Your task to perform on an android device: change keyboard looks Image 0: 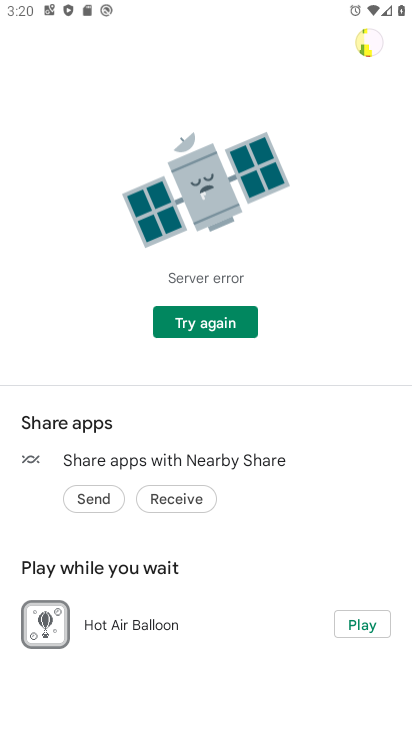
Step 0: press home button
Your task to perform on an android device: change keyboard looks Image 1: 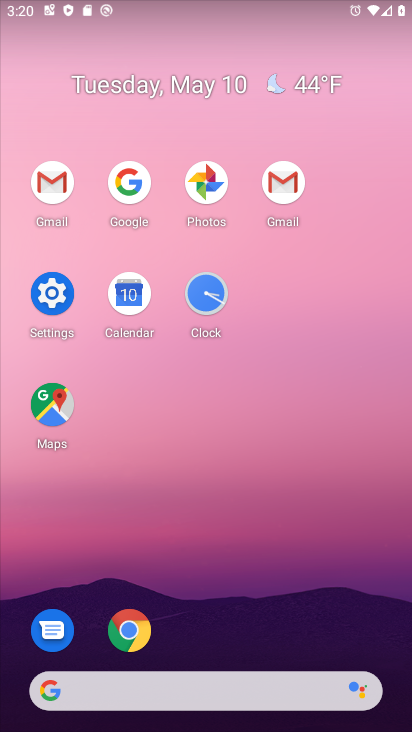
Step 1: click (59, 291)
Your task to perform on an android device: change keyboard looks Image 2: 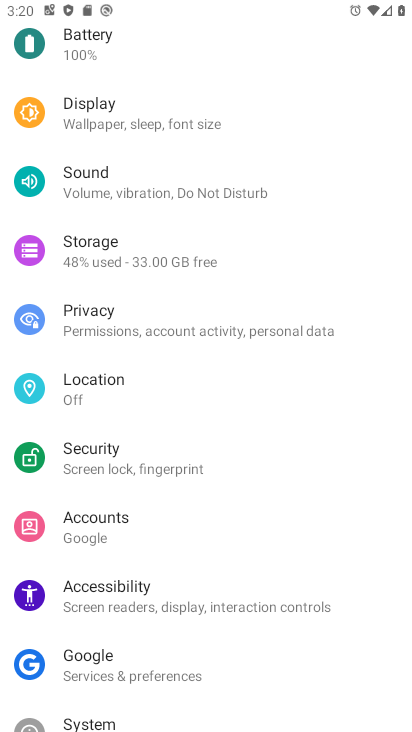
Step 2: click (129, 721)
Your task to perform on an android device: change keyboard looks Image 3: 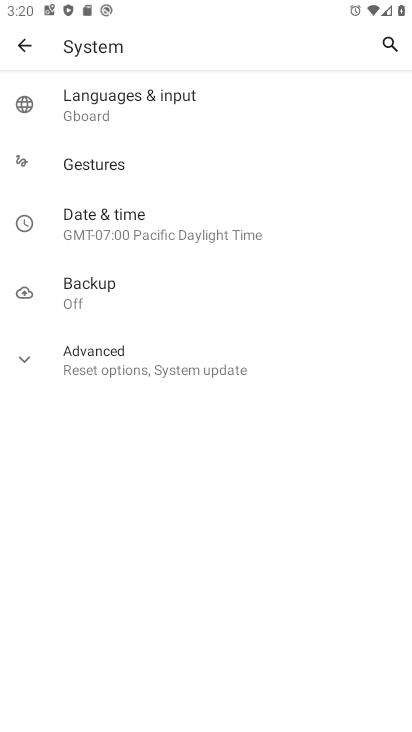
Step 3: click (131, 117)
Your task to perform on an android device: change keyboard looks Image 4: 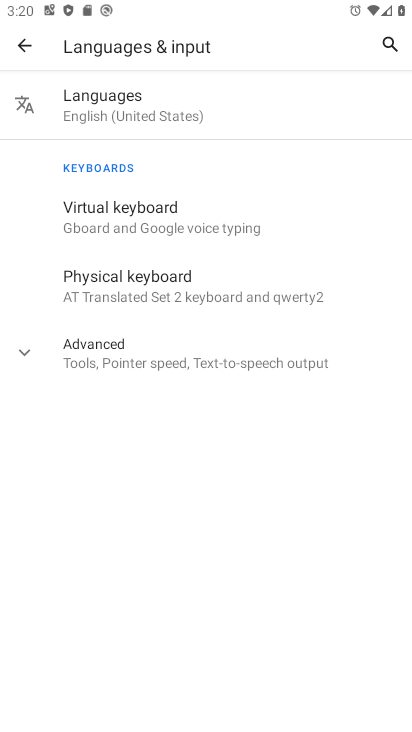
Step 4: click (179, 225)
Your task to perform on an android device: change keyboard looks Image 5: 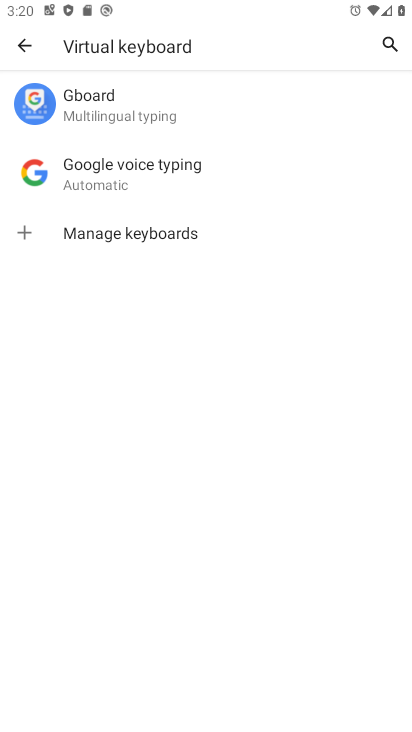
Step 5: click (149, 108)
Your task to perform on an android device: change keyboard looks Image 6: 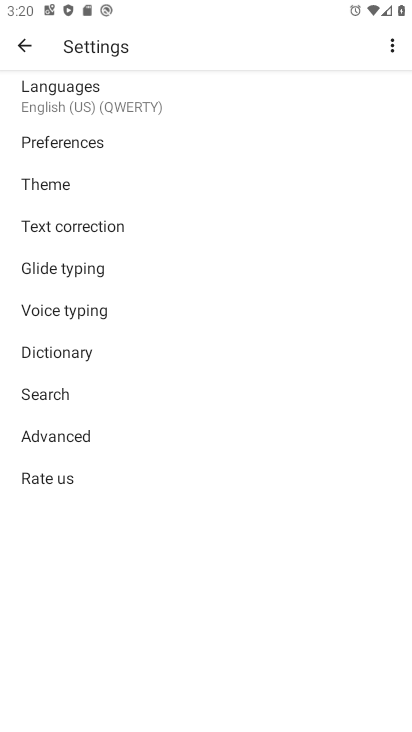
Step 6: click (148, 184)
Your task to perform on an android device: change keyboard looks Image 7: 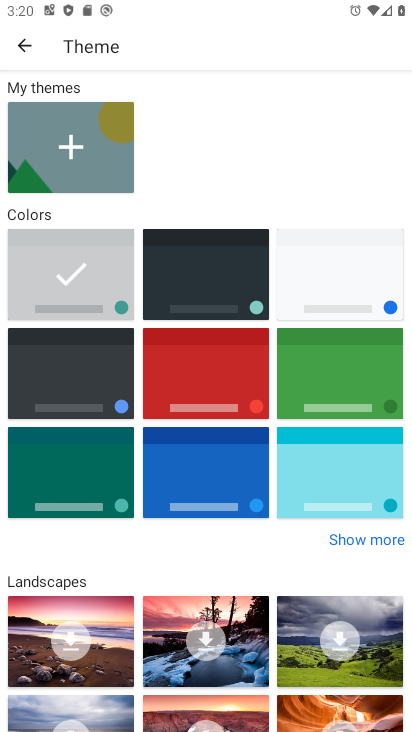
Step 7: click (259, 307)
Your task to perform on an android device: change keyboard looks Image 8: 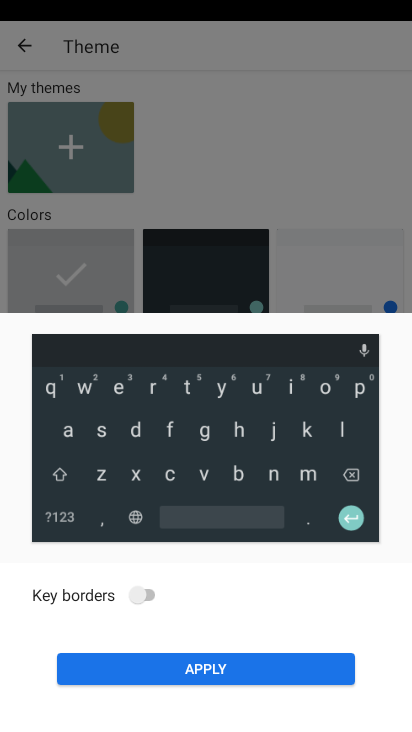
Step 8: click (144, 572)
Your task to perform on an android device: change keyboard looks Image 9: 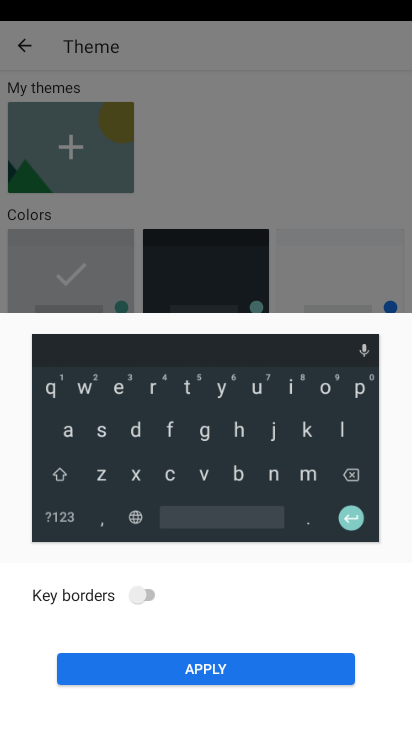
Step 9: click (141, 584)
Your task to perform on an android device: change keyboard looks Image 10: 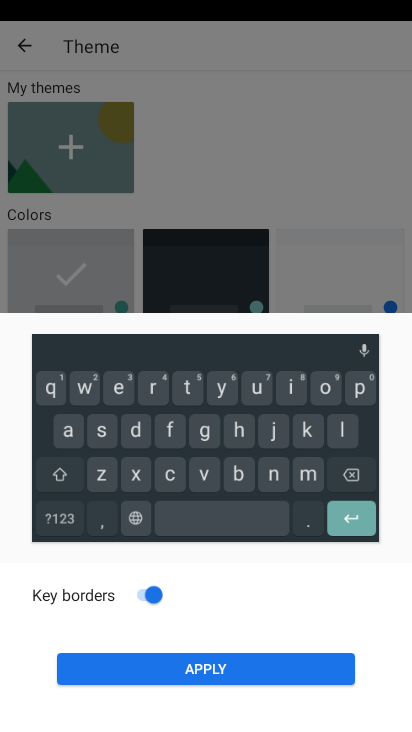
Step 10: click (299, 670)
Your task to perform on an android device: change keyboard looks Image 11: 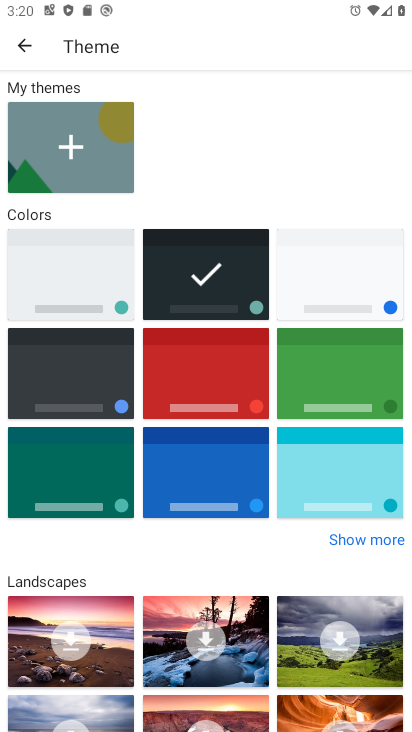
Step 11: task complete